Your task to perform on an android device: make emails show in primary in the gmail app Image 0: 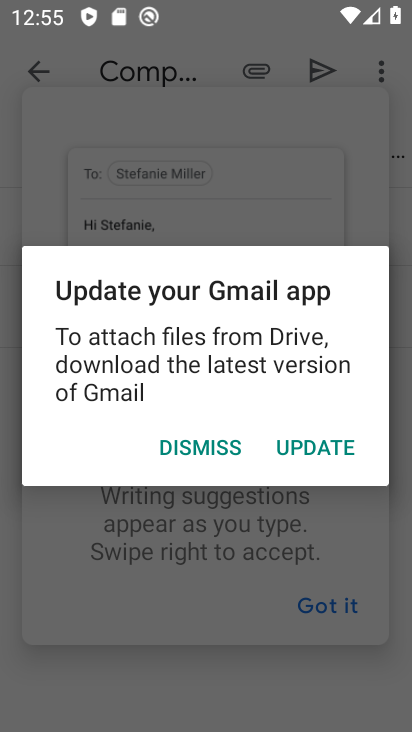
Step 0: press home button
Your task to perform on an android device: make emails show in primary in the gmail app Image 1: 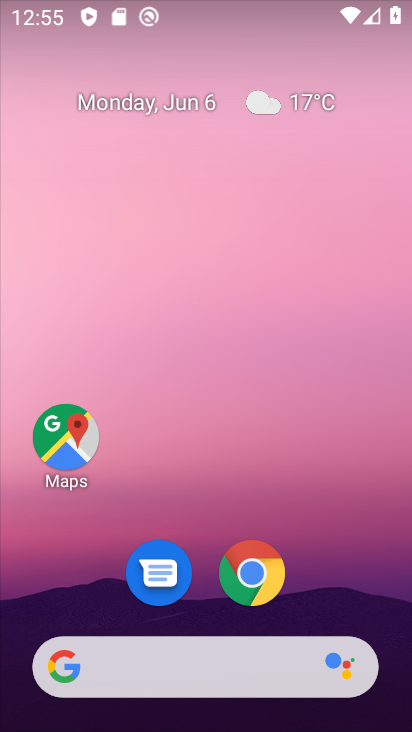
Step 1: drag from (359, 578) to (367, 152)
Your task to perform on an android device: make emails show in primary in the gmail app Image 2: 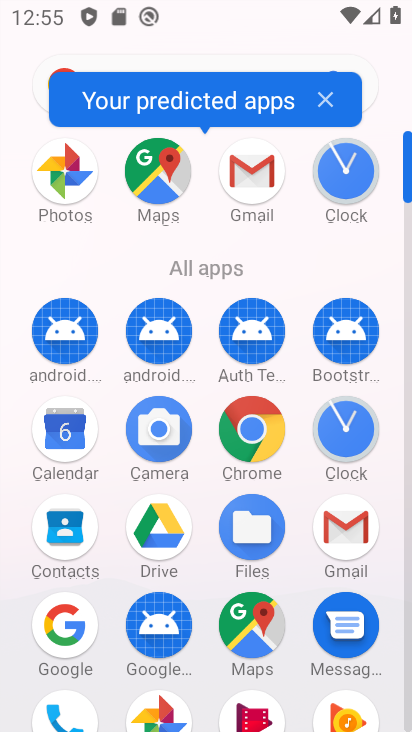
Step 2: click (351, 536)
Your task to perform on an android device: make emails show in primary in the gmail app Image 3: 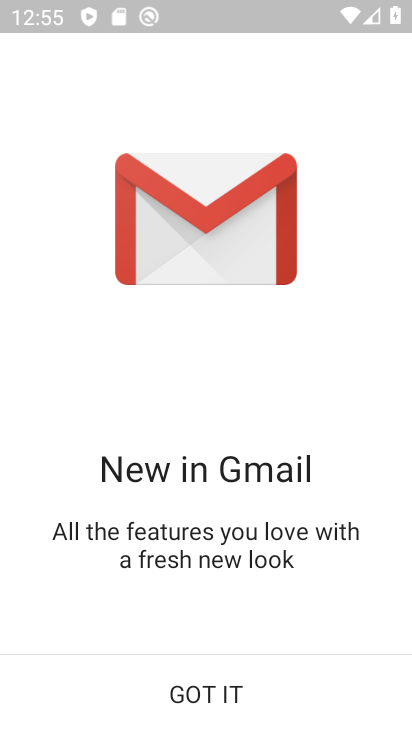
Step 3: click (299, 713)
Your task to perform on an android device: make emails show in primary in the gmail app Image 4: 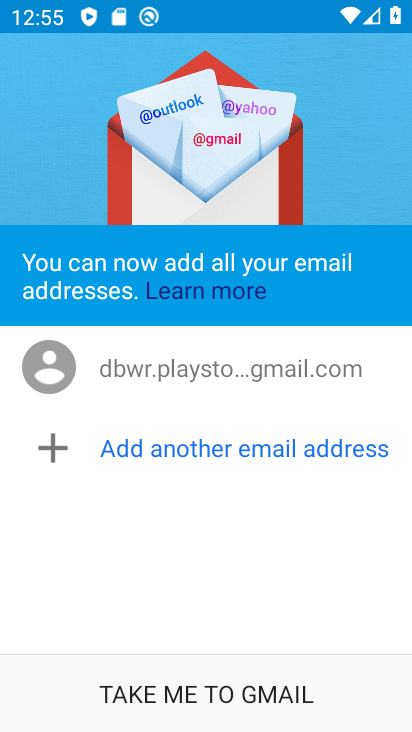
Step 4: click (282, 695)
Your task to perform on an android device: make emails show in primary in the gmail app Image 5: 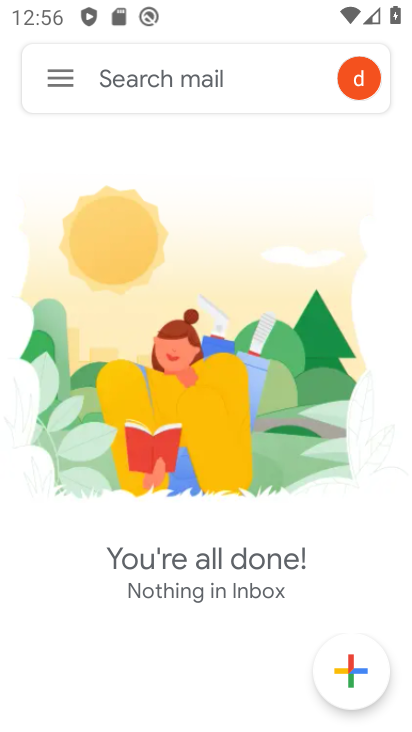
Step 5: click (69, 88)
Your task to perform on an android device: make emails show in primary in the gmail app Image 6: 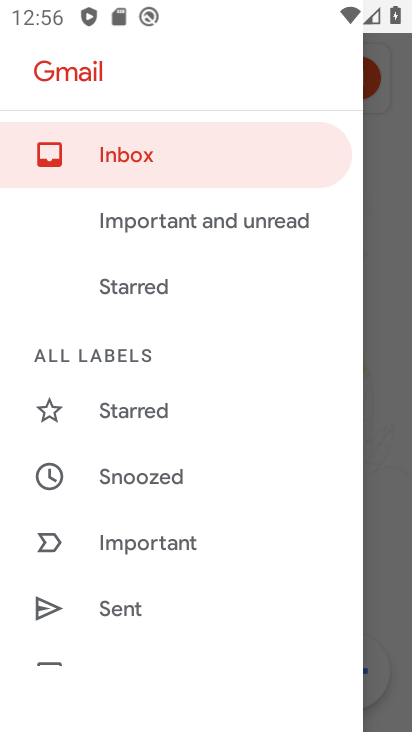
Step 6: drag from (267, 399) to (276, 336)
Your task to perform on an android device: make emails show in primary in the gmail app Image 7: 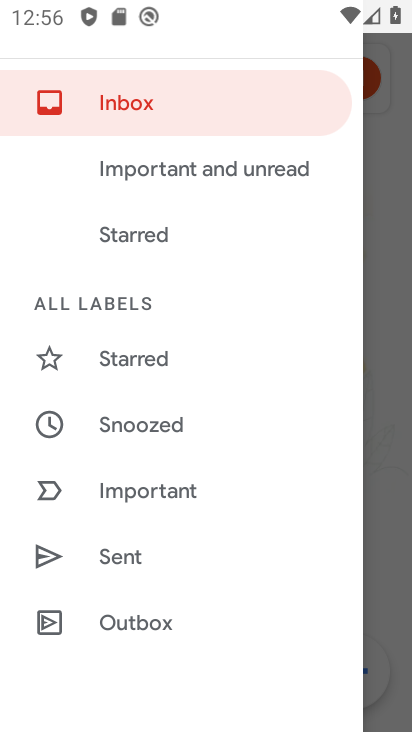
Step 7: drag from (295, 451) to (301, 349)
Your task to perform on an android device: make emails show in primary in the gmail app Image 8: 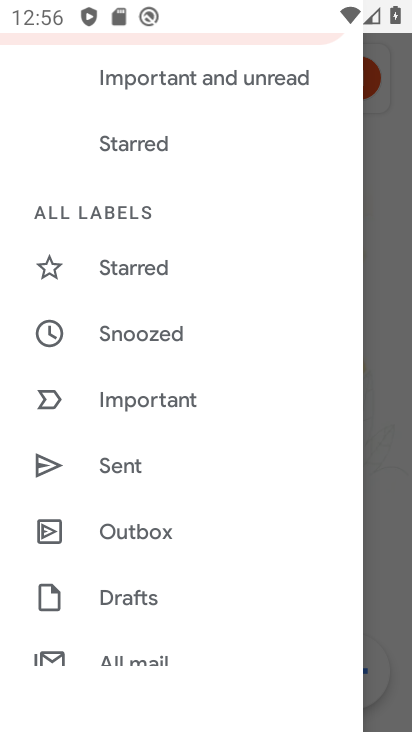
Step 8: drag from (303, 466) to (309, 360)
Your task to perform on an android device: make emails show in primary in the gmail app Image 9: 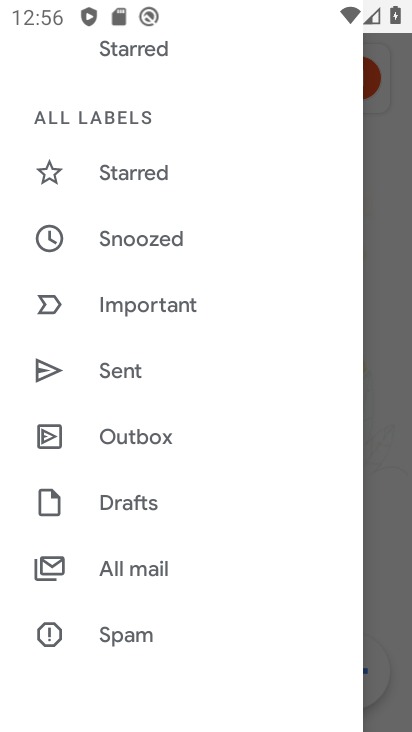
Step 9: drag from (308, 488) to (309, 384)
Your task to perform on an android device: make emails show in primary in the gmail app Image 10: 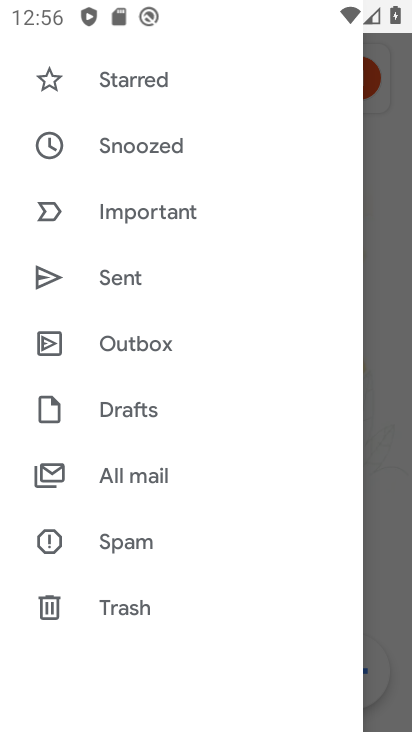
Step 10: drag from (306, 526) to (313, 410)
Your task to perform on an android device: make emails show in primary in the gmail app Image 11: 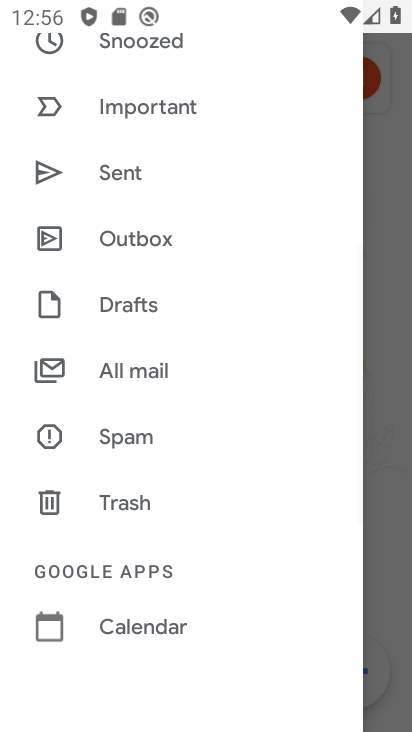
Step 11: drag from (305, 561) to (315, 417)
Your task to perform on an android device: make emails show in primary in the gmail app Image 12: 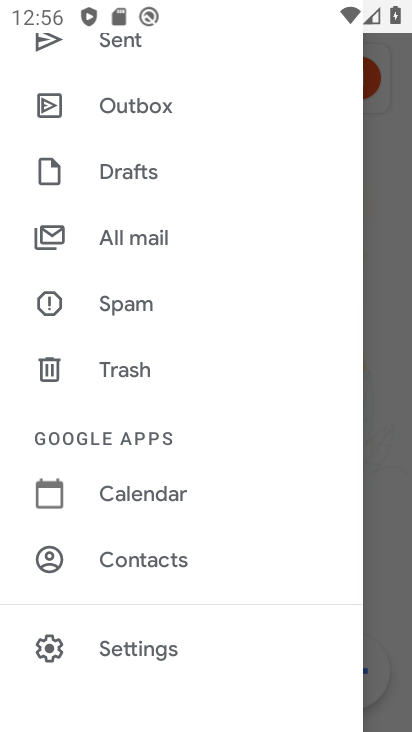
Step 12: drag from (292, 561) to (297, 416)
Your task to perform on an android device: make emails show in primary in the gmail app Image 13: 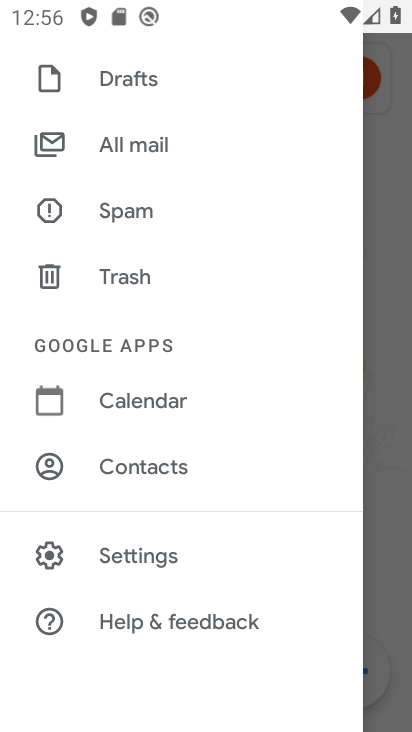
Step 13: click (207, 545)
Your task to perform on an android device: make emails show in primary in the gmail app Image 14: 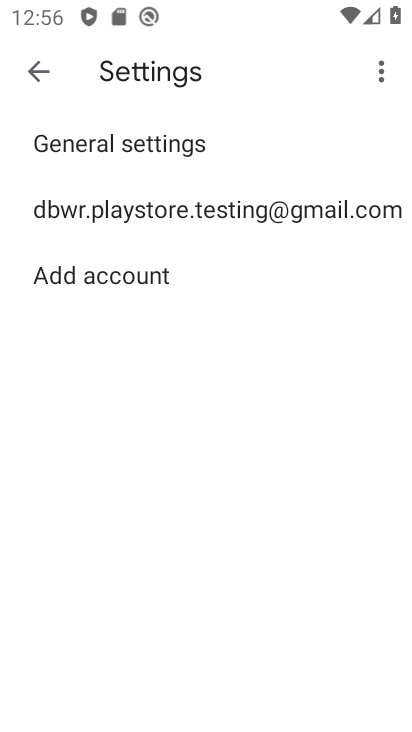
Step 14: click (285, 218)
Your task to perform on an android device: make emails show in primary in the gmail app Image 15: 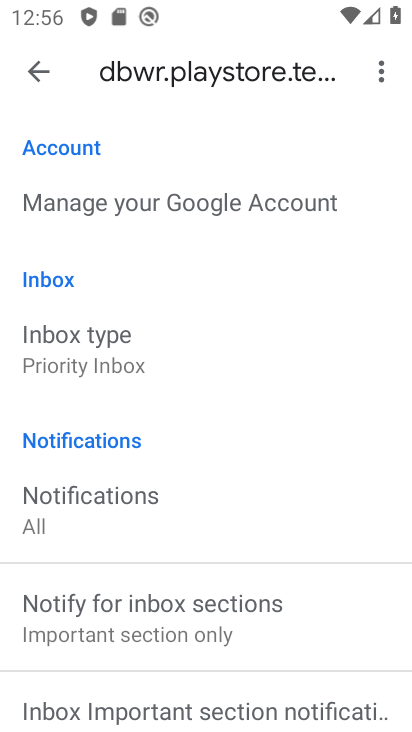
Step 15: click (141, 364)
Your task to perform on an android device: make emails show in primary in the gmail app Image 16: 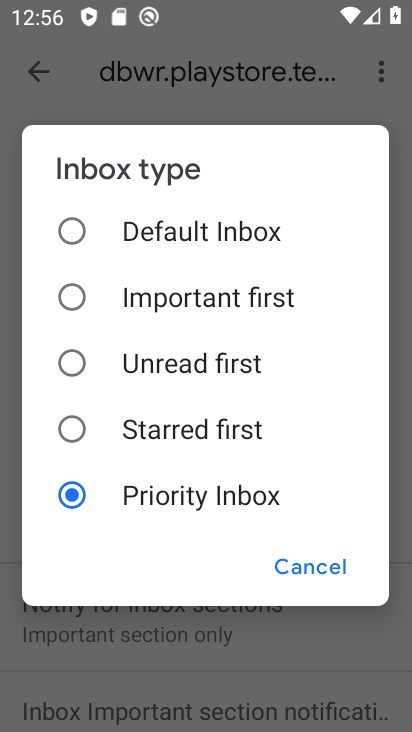
Step 16: click (193, 239)
Your task to perform on an android device: make emails show in primary in the gmail app Image 17: 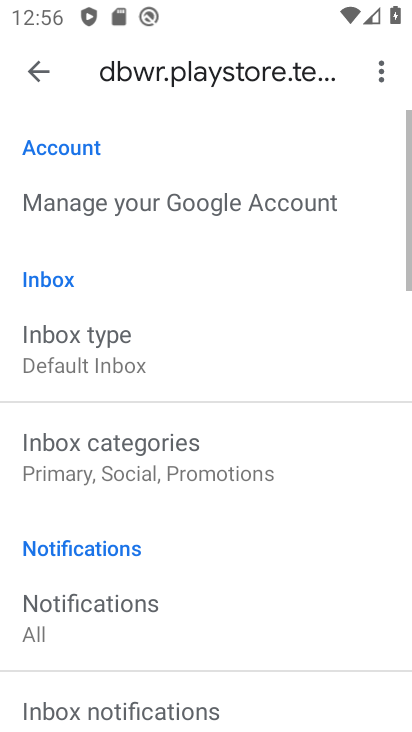
Step 17: click (168, 460)
Your task to perform on an android device: make emails show in primary in the gmail app Image 18: 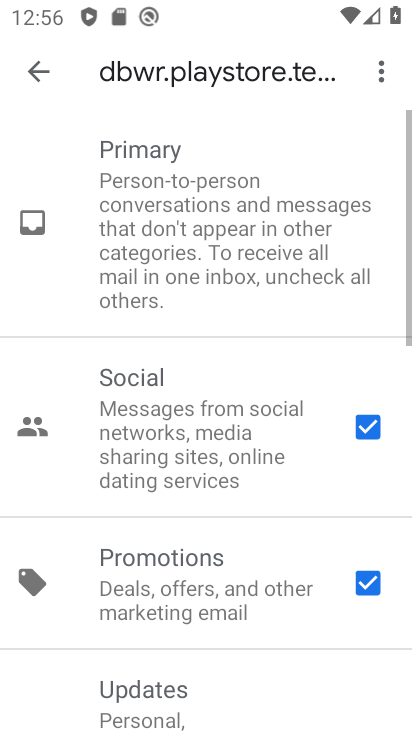
Step 18: click (366, 414)
Your task to perform on an android device: make emails show in primary in the gmail app Image 19: 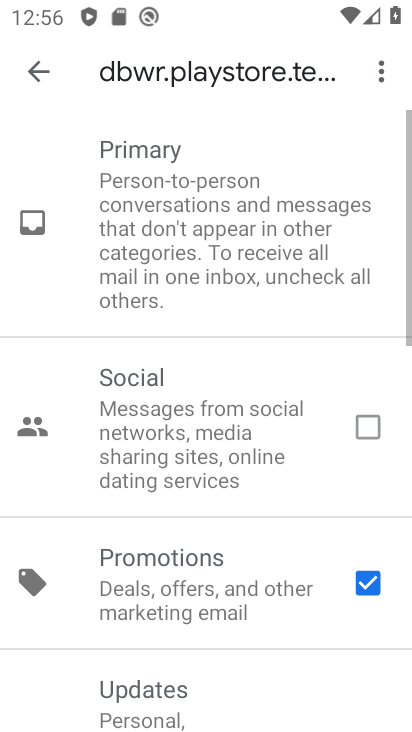
Step 19: click (371, 599)
Your task to perform on an android device: make emails show in primary in the gmail app Image 20: 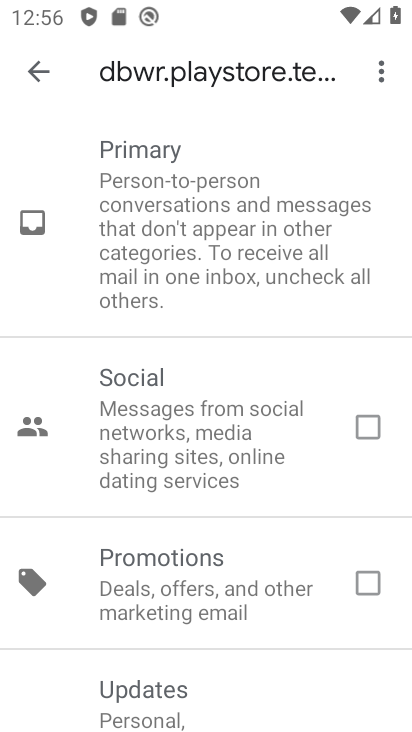
Step 20: task complete